Your task to perform on an android device: see sites visited before in the chrome app Image 0: 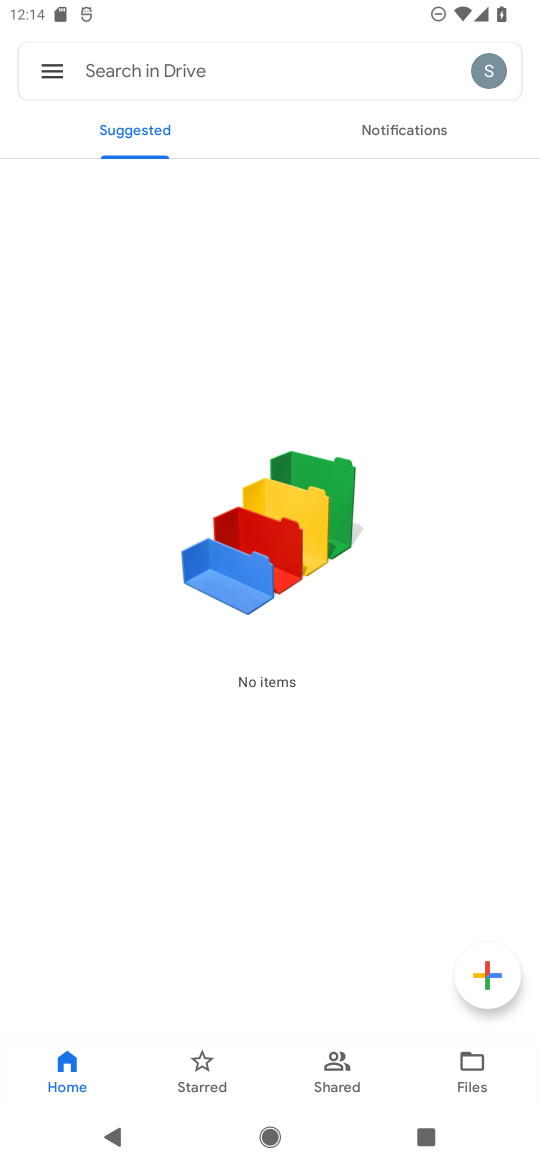
Step 0: press home button
Your task to perform on an android device: see sites visited before in the chrome app Image 1: 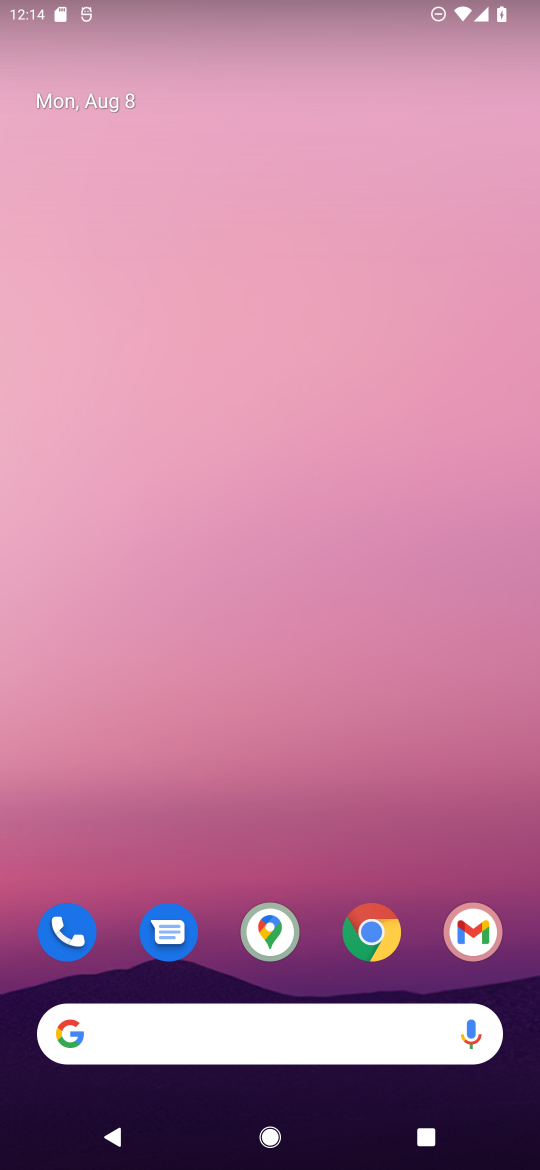
Step 1: click (363, 939)
Your task to perform on an android device: see sites visited before in the chrome app Image 2: 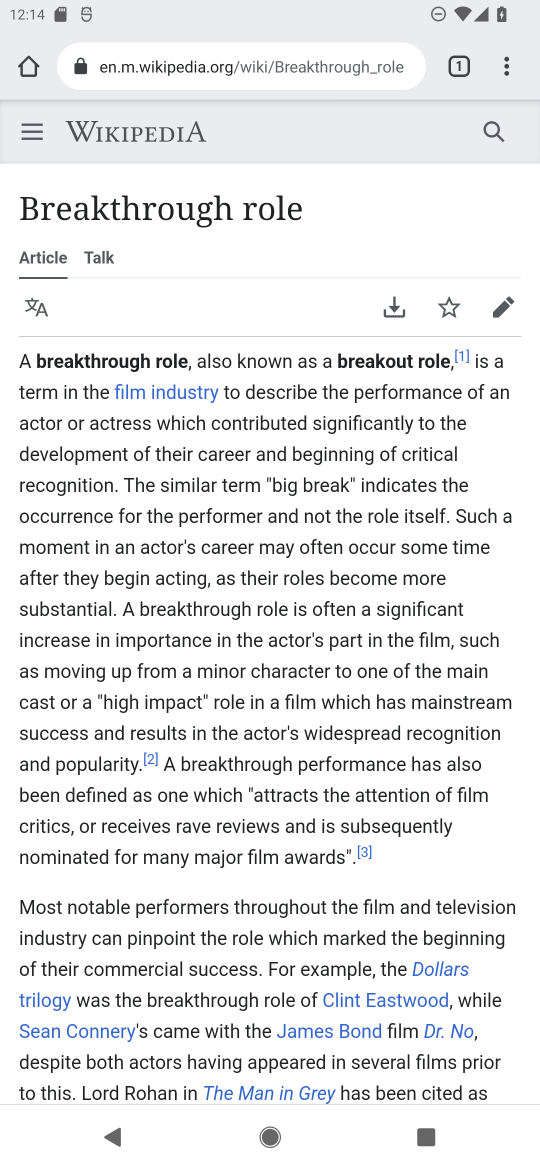
Step 2: click (513, 72)
Your task to perform on an android device: see sites visited before in the chrome app Image 3: 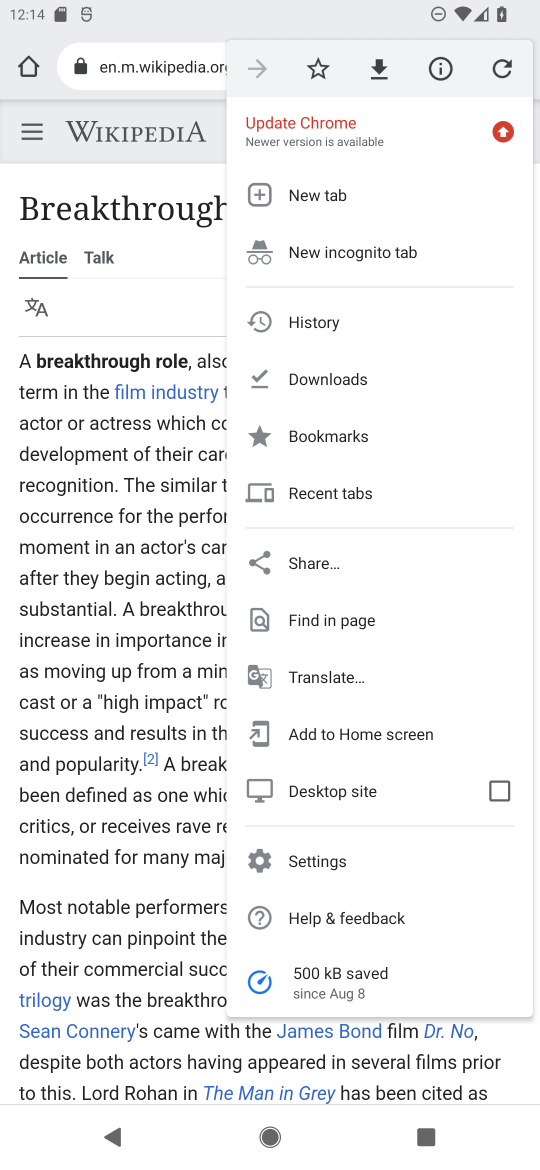
Step 3: click (363, 510)
Your task to perform on an android device: see sites visited before in the chrome app Image 4: 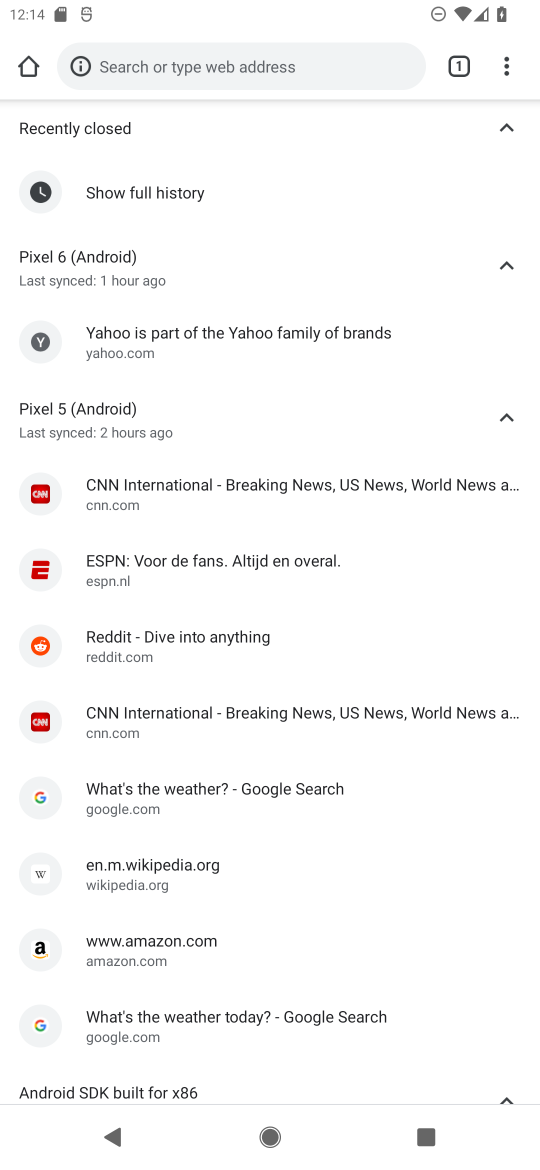
Step 4: task complete